Your task to perform on an android device: toggle javascript in the chrome app Image 0: 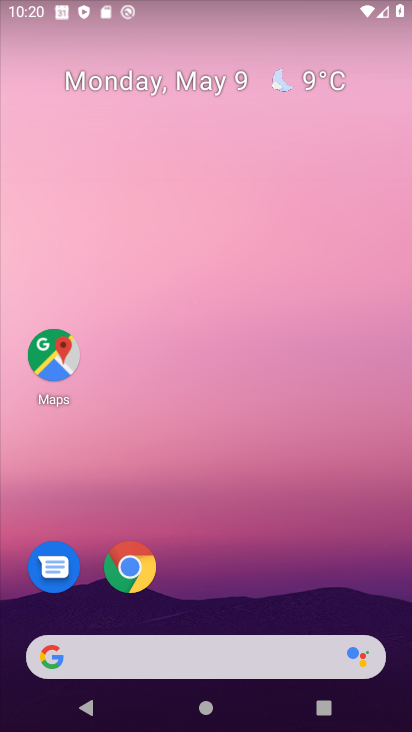
Step 0: click (128, 561)
Your task to perform on an android device: toggle javascript in the chrome app Image 1: 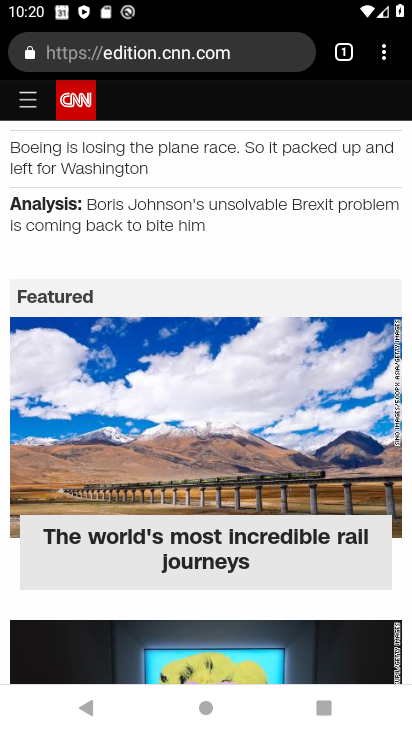
Step 1: click (376, 51)
Your task to perform on an android device: toggle javascript in the chrome app Image 2: 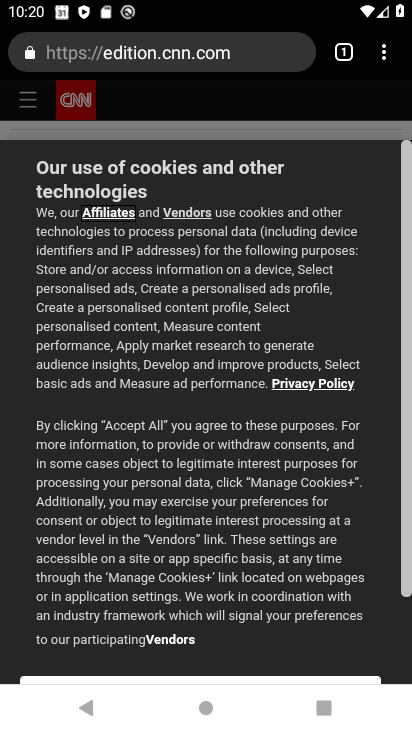
Step 2: drag from (226, 619) to (284, 155)
Your task to perform on an android device: toggle javascript in the chrome app Image 3: 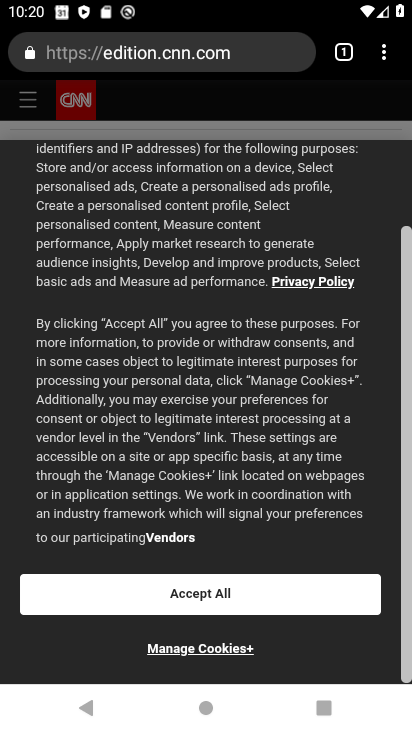
Step 3: click (191, 597)
Your task to perform on an android device: toggle javascript in the chrome app Image 4: 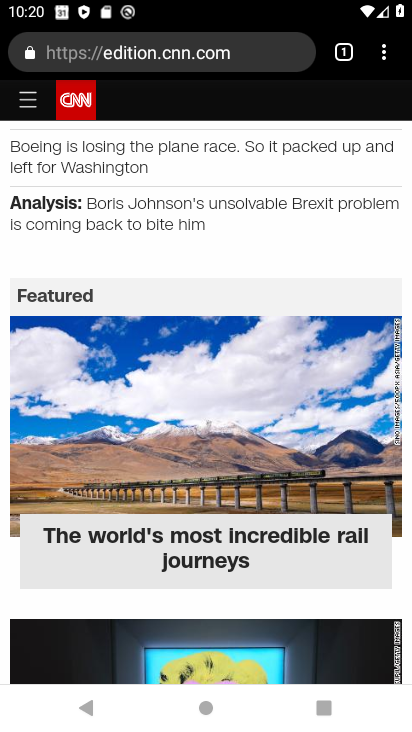
Step 4: click (390, 50)
Your task to perform on an android device: toggle javascript in the chrome app Image 5: 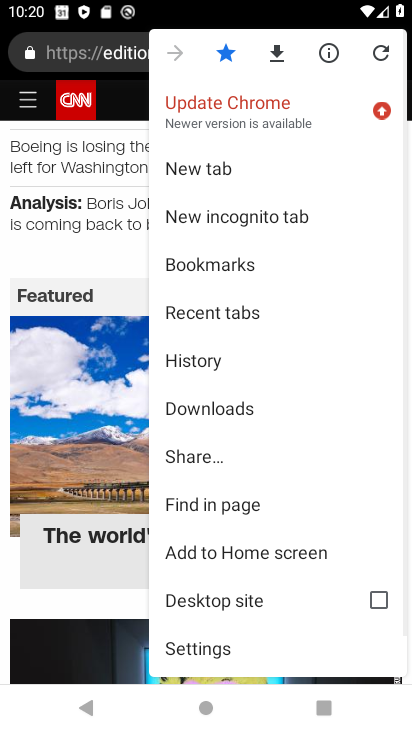
Step 5: click (227, 646)
Your task to perform on an android device: toggle javascript in the chrome app Image 6: 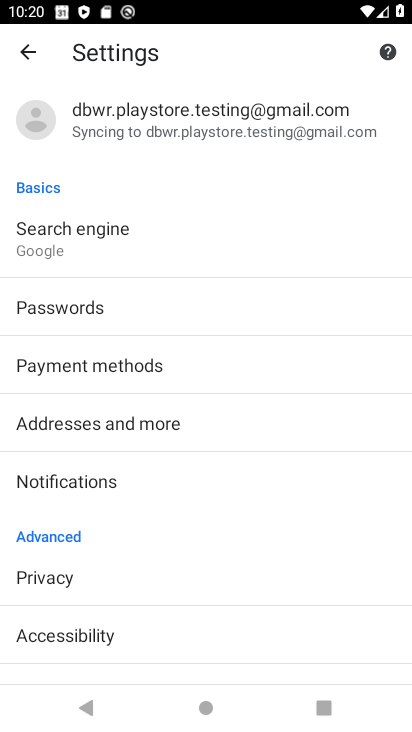
Step 6: drag from (163, 619) to (221, 91)
Your task to perform on an android device: toggle javascript in the chrome app Image 7: 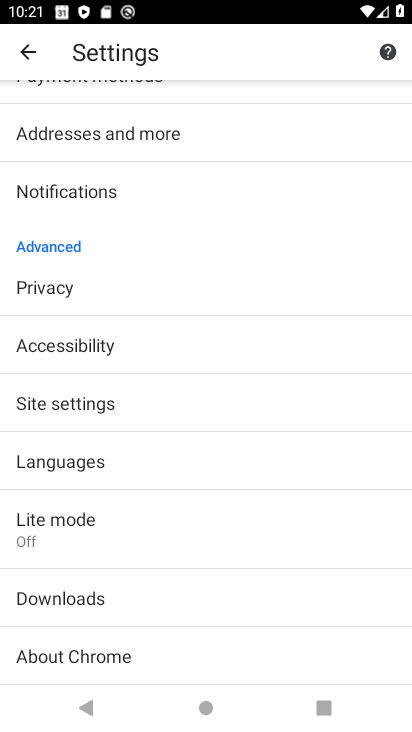
Step 7: click (138, 396)
Your task to perform on an android device: toggle javascript in the chrome app Image 8: 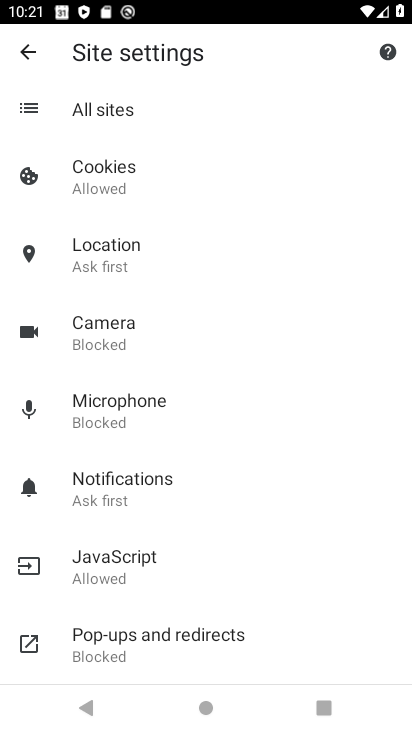
Step 8: click (136, 565)
Your task to perform on an android device: toggle javascript in the chrome app Image 9: 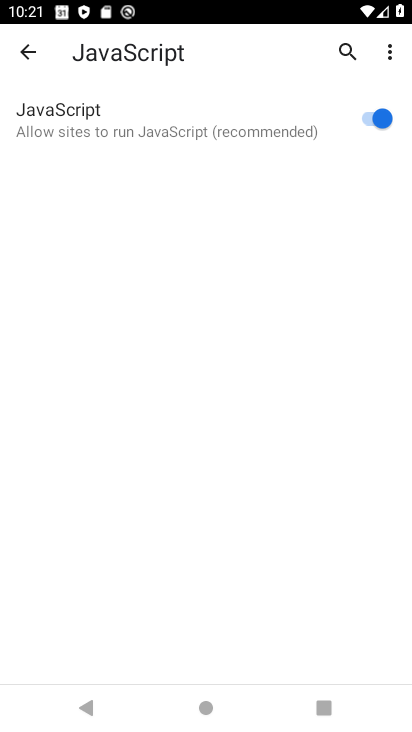
Step 9: click (368, 117)
Your task to perform on an android device: toggle javascript in the chrome app Image 10: 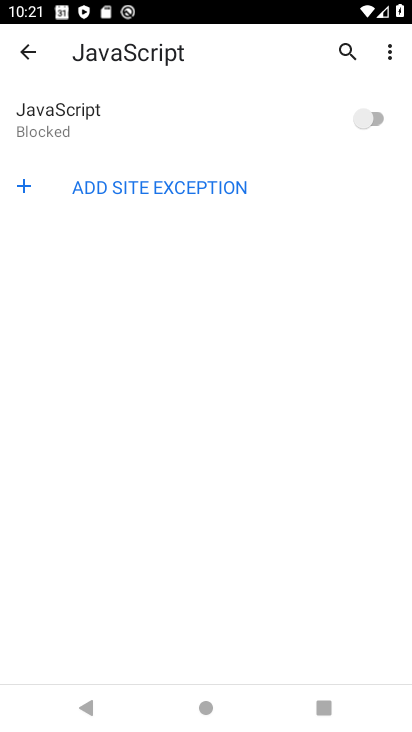
Step 10: task complete